Your task to perform on an android device: allow notifications from all sites in the chrome app Image 0: 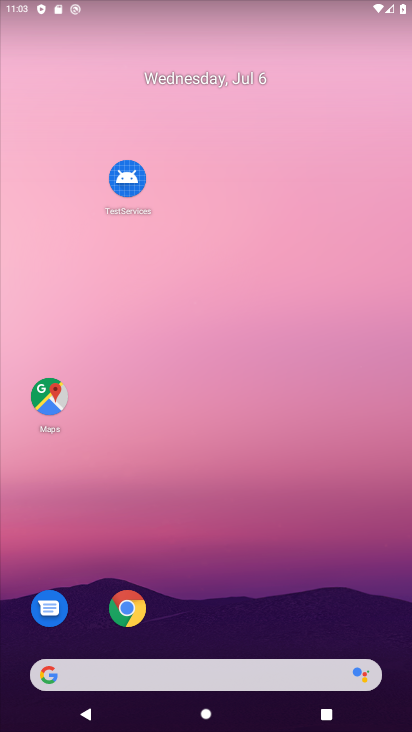
Step 0: press back button
Your task to perform on an android device: allow notifications from all sites in the chrome app Image 1: 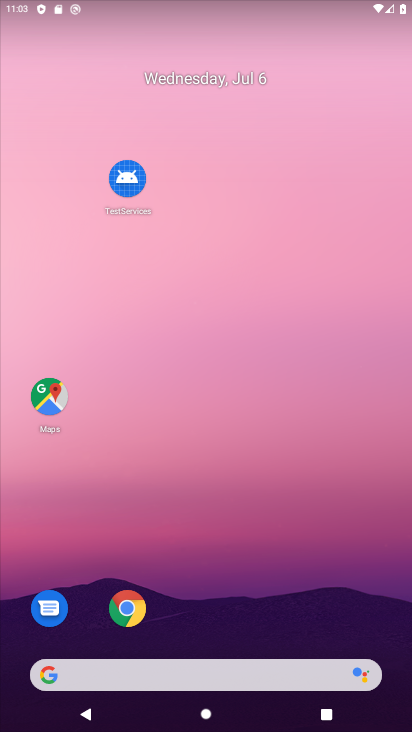
Step 1: press home button
Your task to perform on an android device: allow notifications from all sites in the chrome app Image 2: 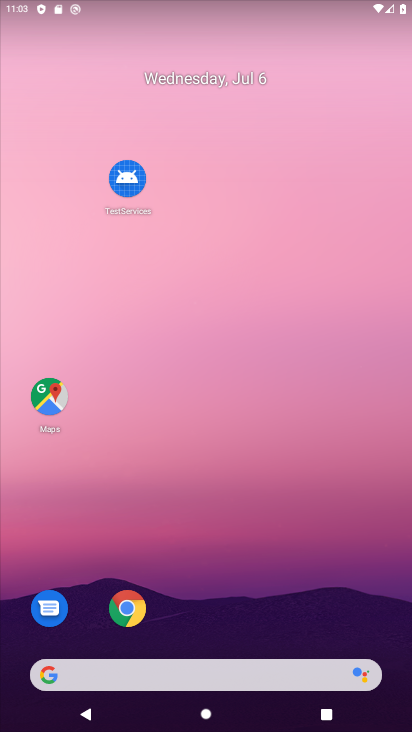
Step 2: click (232, 293)
Your task to perform on an android device: allow notifications from all sites in the chrome app Image 3: 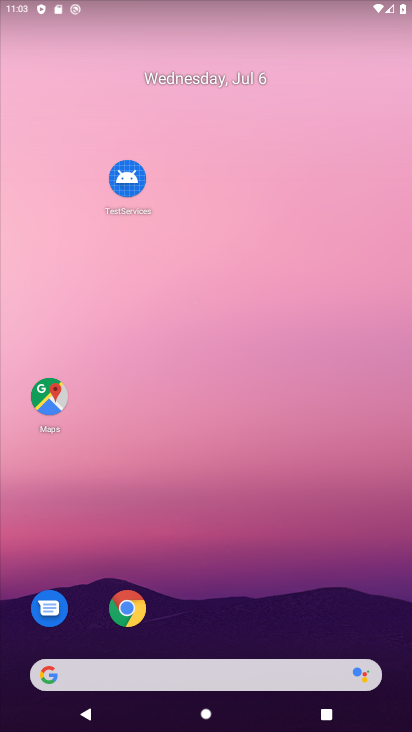
Step 3: drag from (282, 690) to (233, 182)
Your task to perform on an android device: allow notifications from all sites in the chrome app Image 4: 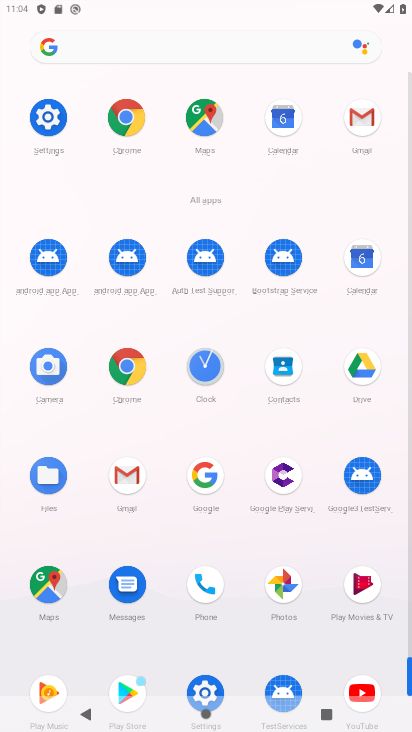
Step 4: click (126, 117)
Your task to perform on an android device: allow notifications from all sites in the chrome app Image 5: 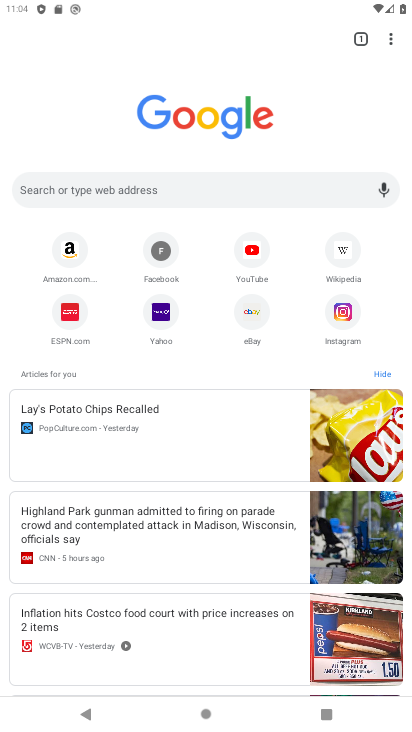
Step 5: drag from (388, 43) to (249, 373)
Your task to perform on an android device: allow notifications from all sites in the chrome app Image 6: 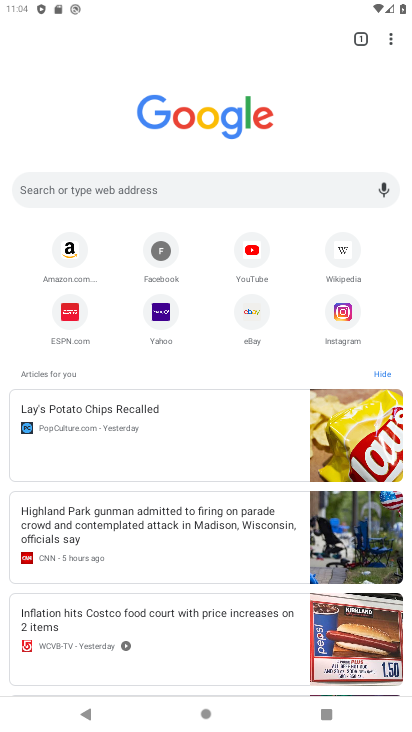
Step 6: click (244, 367)
Your task to perform on an android device: allow notifications from all sites in the chrome app Image 7: 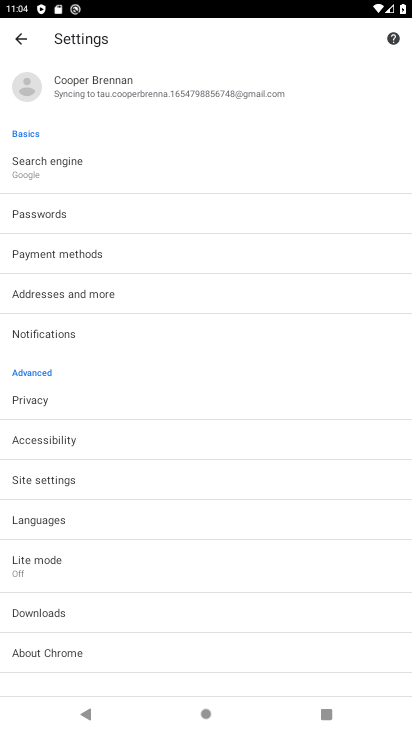
Step 7: click (40, 478)
Your task to perform on an android device: allow notifications from all sites in the chrome app Image 8: 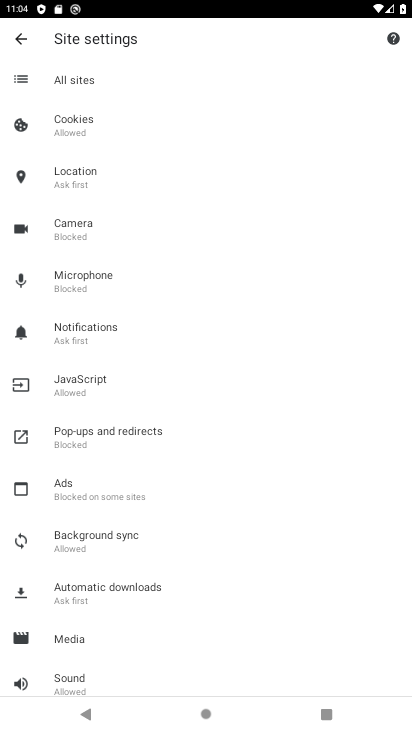
Step 8: click (18, 37)
Your task to perform on an android device: allow notifications from all sites in the chrome app Image 9: 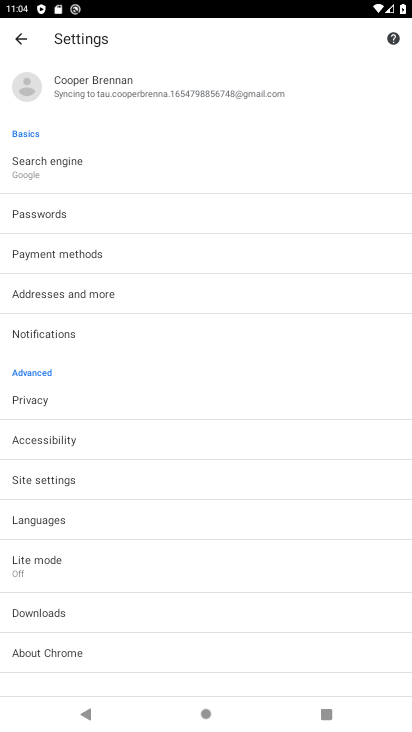
Step 9: drag from (95, 426) to (69, 212)
Your task to perform on an android device: allow notifications from all sites in the chrome app Image 10: 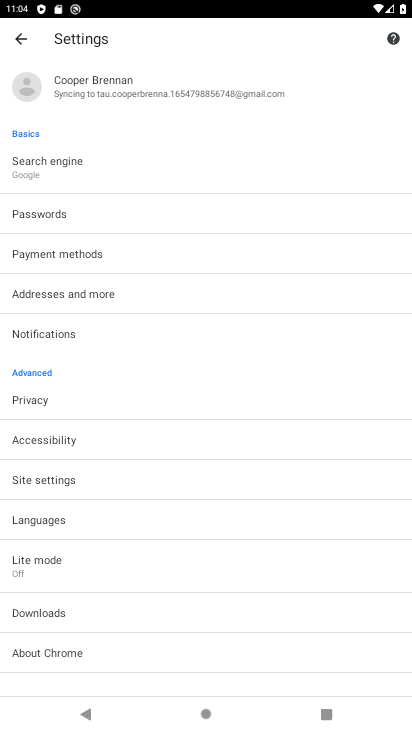
Step 10: drag from (119, 454) to (117, 345)
Your task to perform on an android device: allow notifications from all sites in the chrome app Image 11: 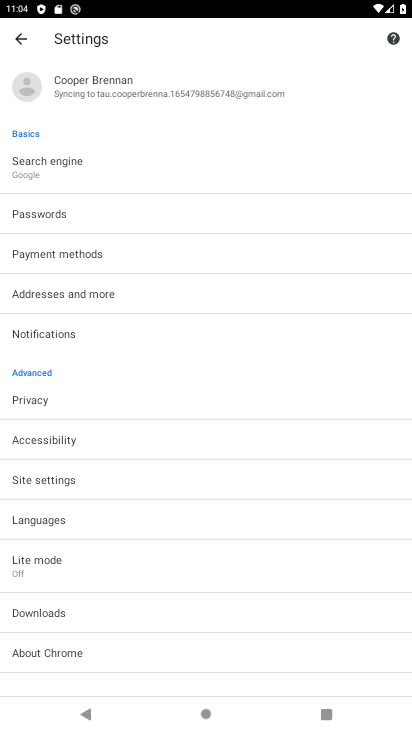
Step 11: click (42, 325)
Your task to perform on an android device: allow notifications from all sites in the chrome app Image 12: 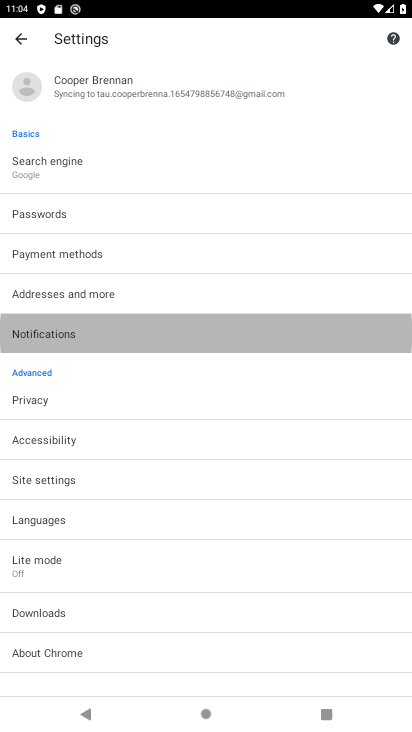
Step 12: click (59, 330)
Your task to perform on an android device: allow notifications from all sites in the chrome app Image 13: 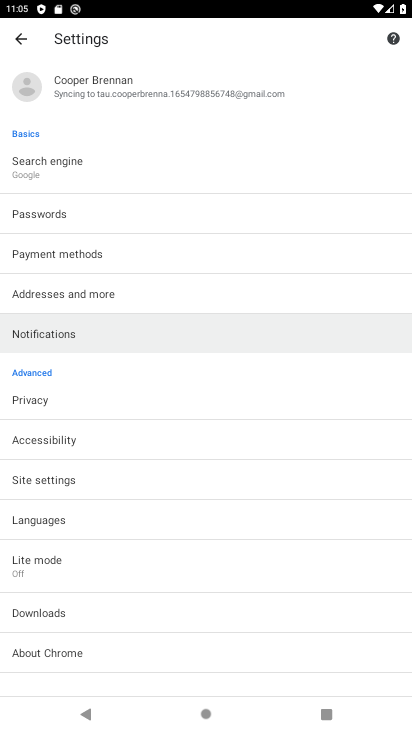
Step 13: click (59, 330)
Your task to perform on an android device: allow notifications from all sites in the chrome app Image 14: 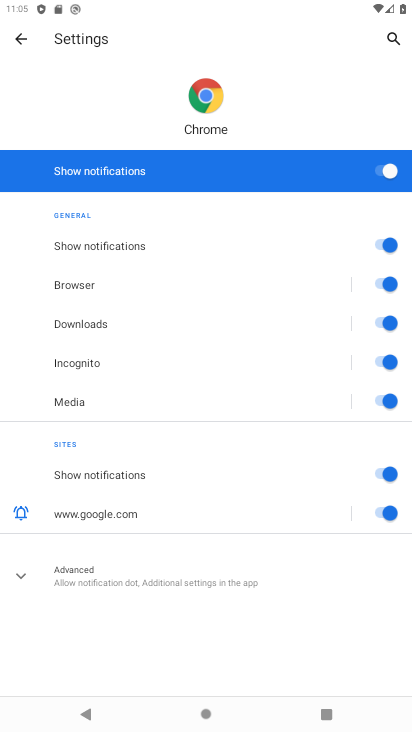
Step 14: task complete